Your task to perform on an android device: open sync settings in chrome Image 0: 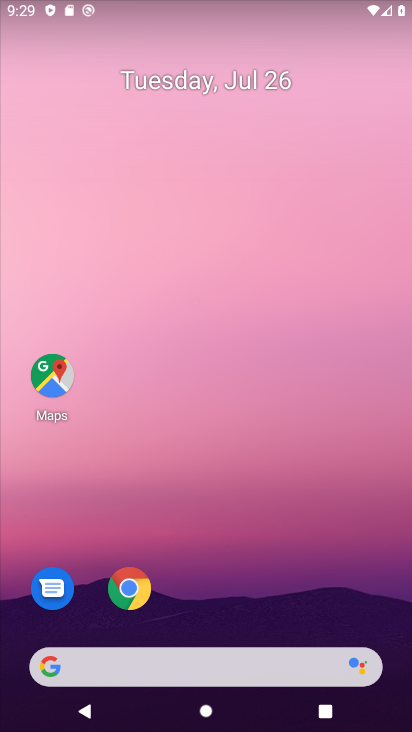
Step 0: click (131, 590)
Your task to perform on an android device: open sync settings in chrome Image 1: 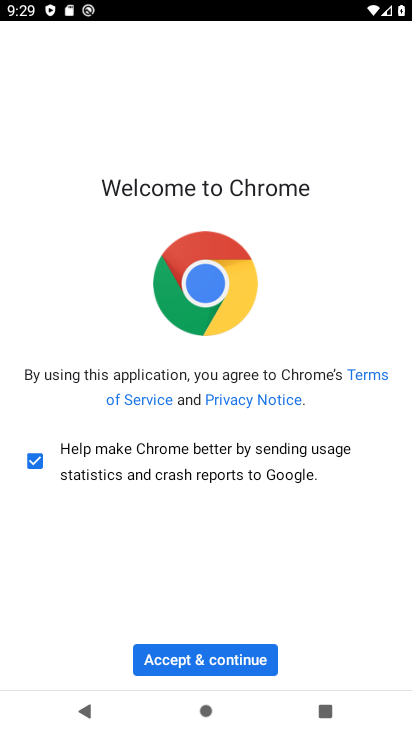
Step 1: click (178, 664)
Your task to perform on an android device: open sync settings in chrome Image 2: 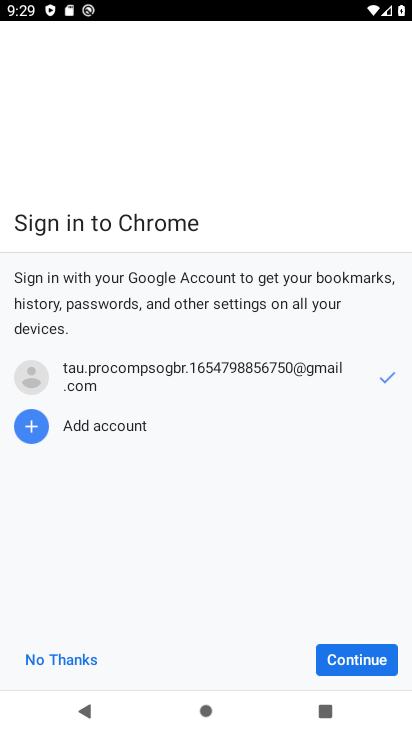
Step 2: click (353, 669)
Your task to perform on an android device: open sync settings in chrome Image 3: 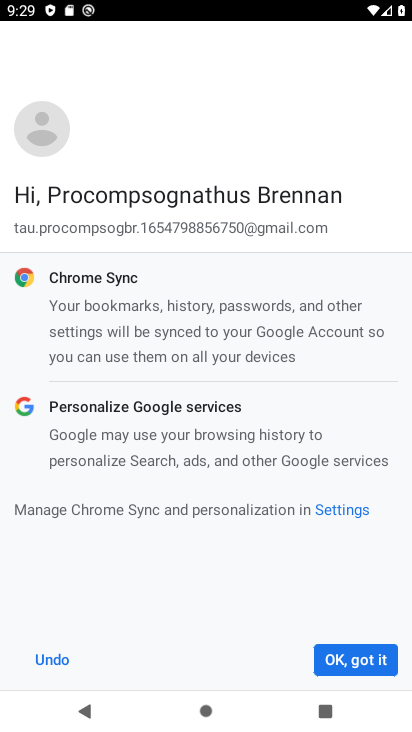
Step 3: click (354, 652)
Your task to perform on an android device: open sync settings in chrome Image 4: 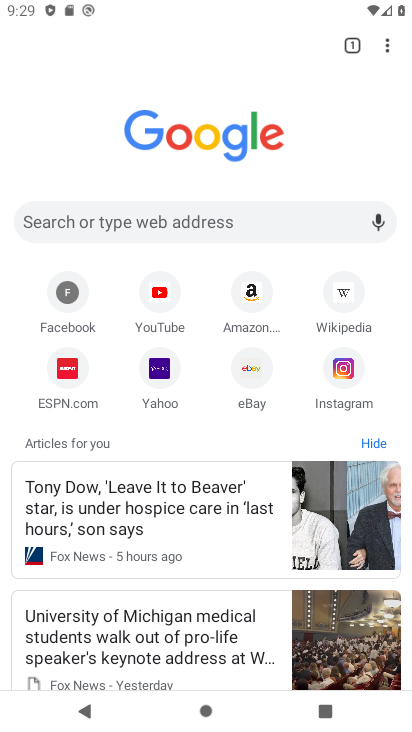
Step 4: drag from (387, 46) to (247, 379)
Your task to perform on an android device: open sync settings in chrome Image 5: 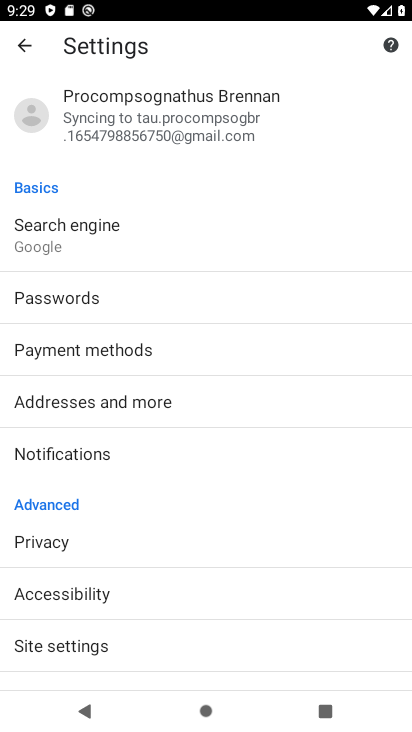
Step 5: click (133, 109)
Your task to perform on an android device: open sync settings in chrome Image 6: 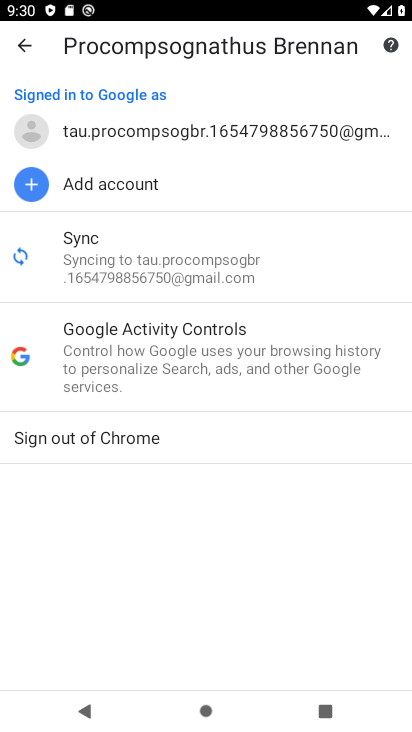
Step 6: task complete